Your task to perform on an android device: toggle javascript in the chrome app Image 0: 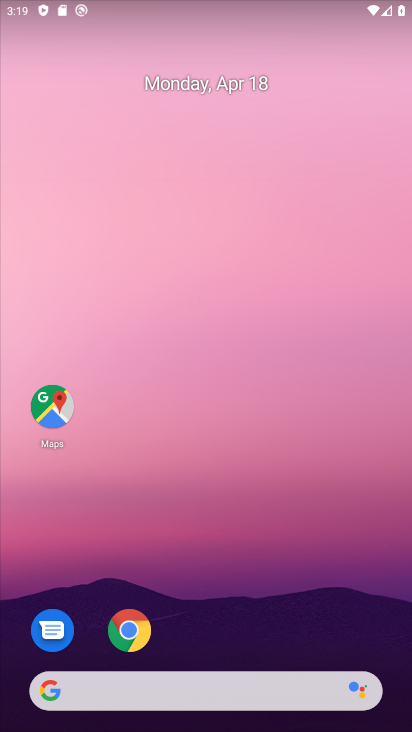
Step 0: drag from (231, 163) to (246, 25)
Your task to perform on an android device: toggle javascript in the chrome app Image 1: 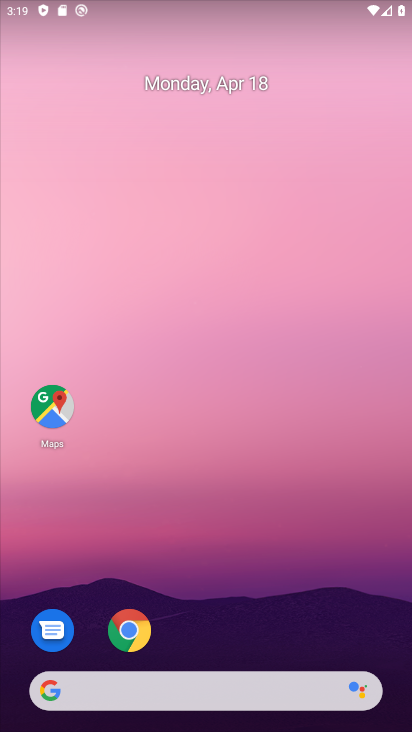
Step 1: drag from (198, 659) to (277, 108)
Your task to perform on an android device: toggle javascript in the chrome app Image 2: 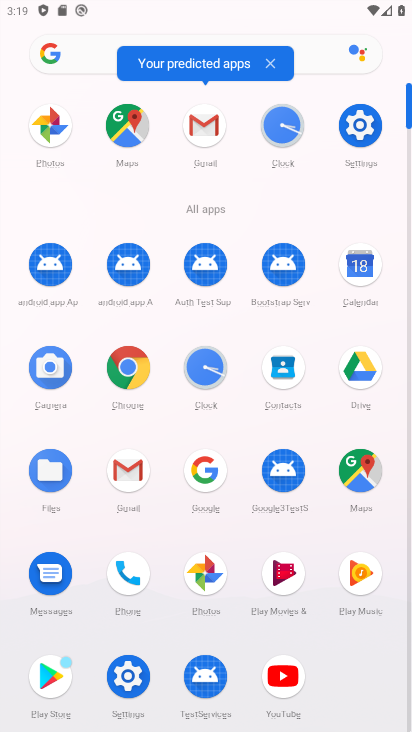
Step 2: click (120, 362)
Your task to perform on an android device: toggle javascript in the chrome app Image 3: 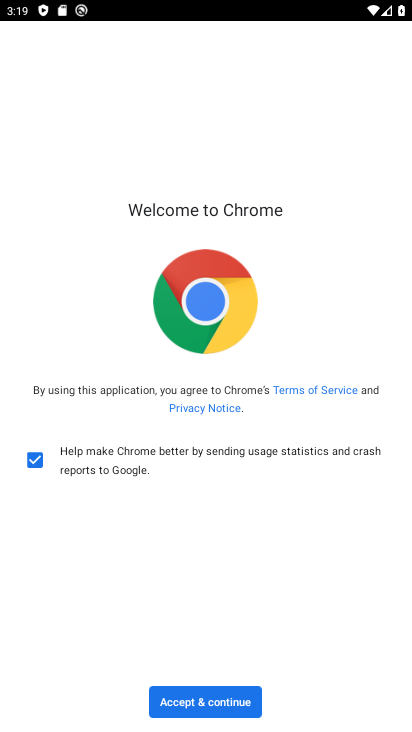
Step 3: click (219, 711)
Your task to perform on an android device: toggle javascript in the chrome app Image 4: 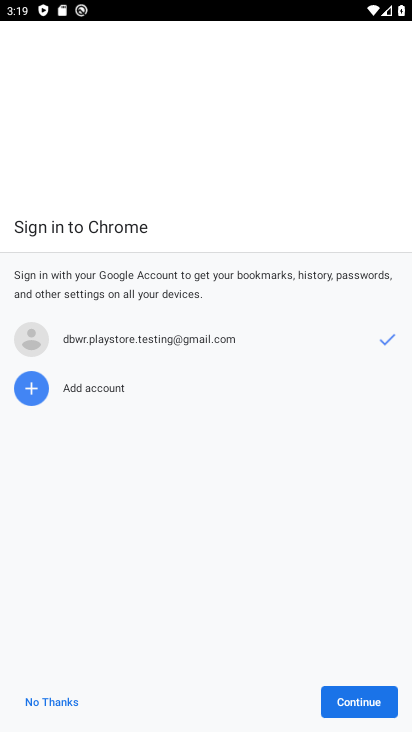
Step 4: click (351, 702)
Your task to perform on an android device: toggle javascript in the chrome app Image 5: 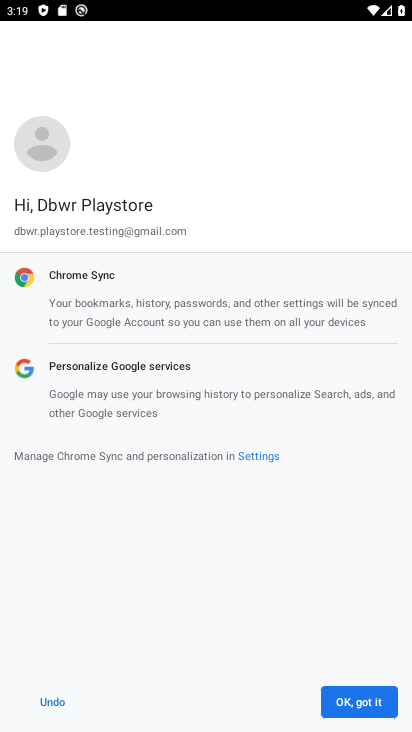
Step 5: click (351, 702)
Your task to perform on an android device: toggle javascript in the chrome app Image 6: 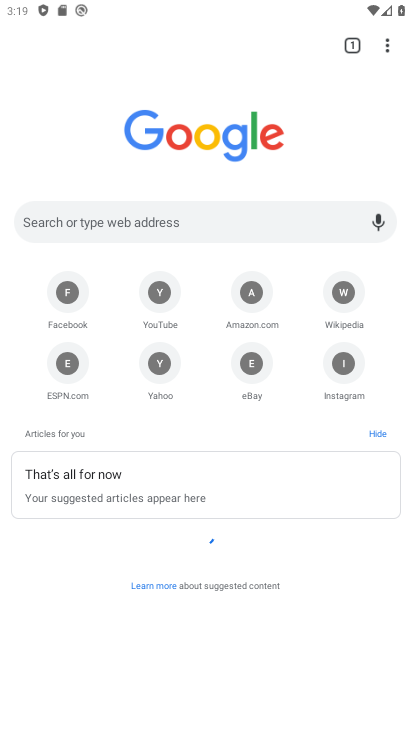
Step 6: click (387, 45)
Your task to perform on an android device: toggle javascript in the chrome app Image 7: 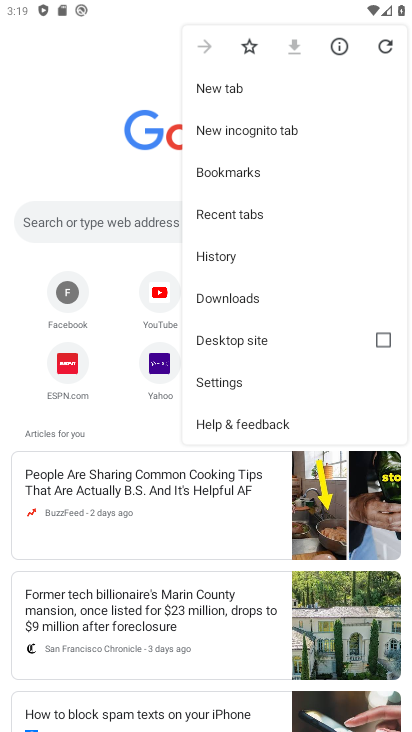
Step 7: click (254, 392)
Your task to perform on an android device: toggle javascript in the chrome app Image 8: 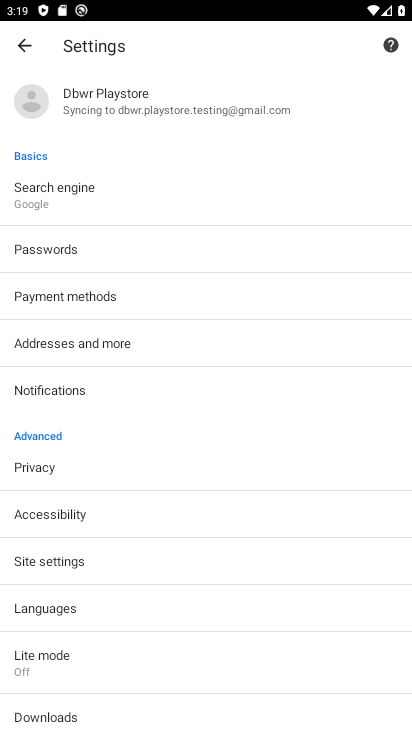
Step 8: drag from (179, 575) to (252, 321)
Your task to perform on an android device: toggle javascript in the chrome app Image 9: 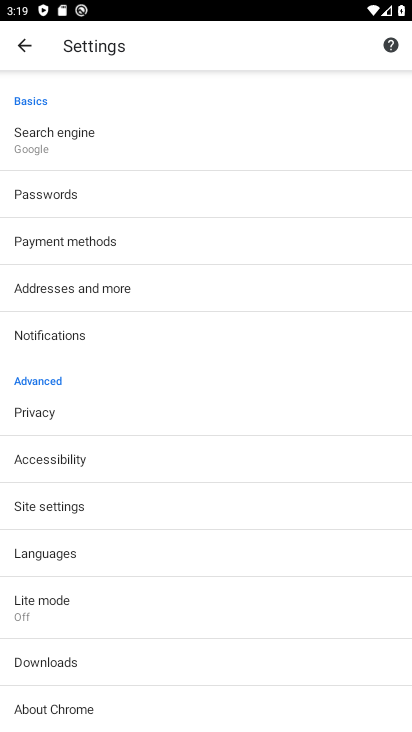
Step 9: click (94, 512)
Your task to perform on an android device: toggle javascript in the chrome app Image 10: 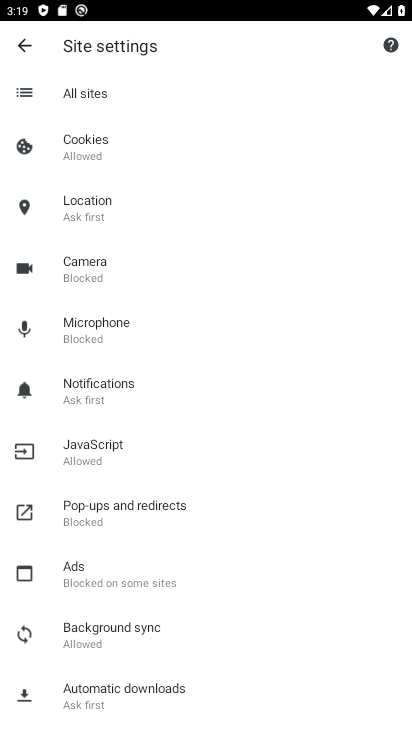
Step 10: click (136, 454)
Your task to perform on an android device: toggle javascript in the chrome app Image 11: 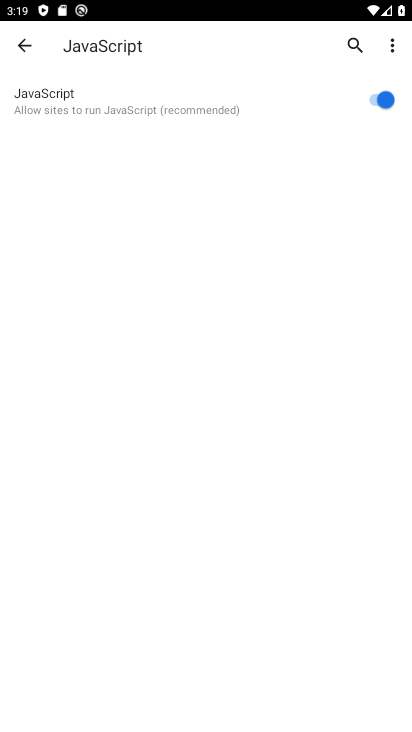
Step 11: click (369, 95)
Your task to perform on an android device: toggle javascript in the chrome app Image 12: 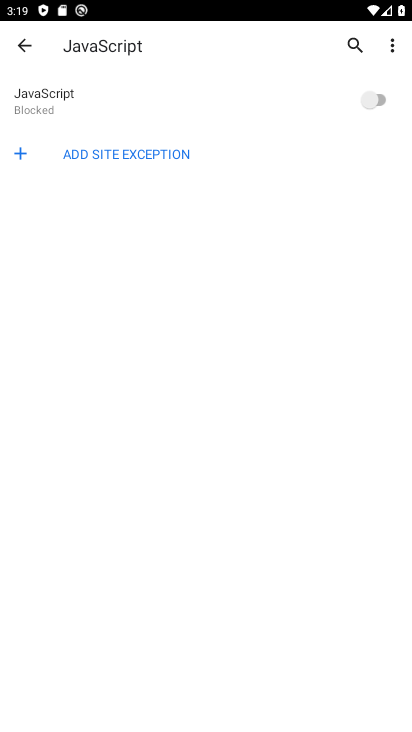
Step 12: task complete